Your task to perform on an android device: Add bose soundlink to the cart on amazon.com, then select checkout. Image 0: 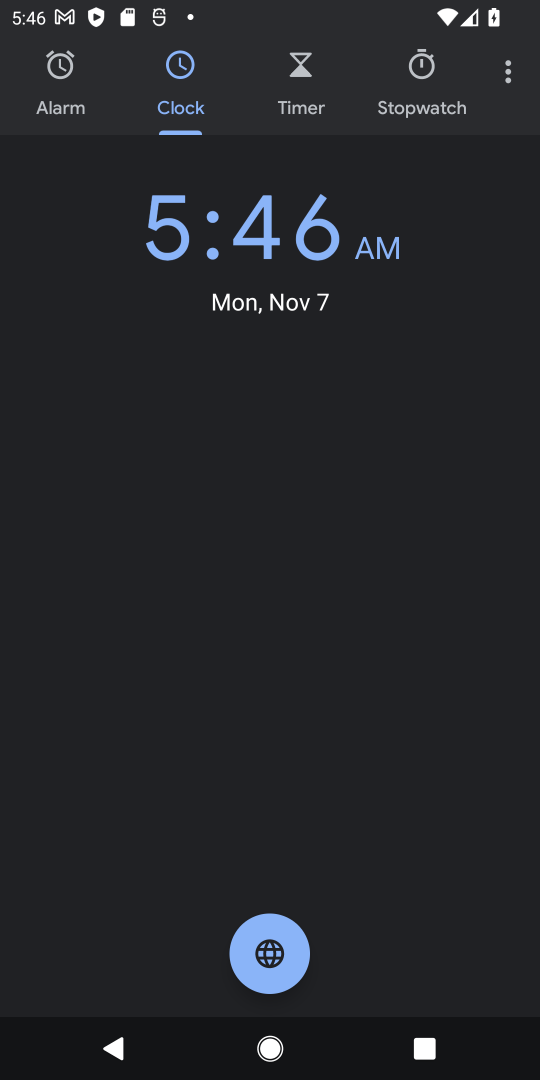
Step 0: press home button
Your task to perform on an android device: Add bose soundlink to the cart on amazon.com, then select checkout. Image 1: 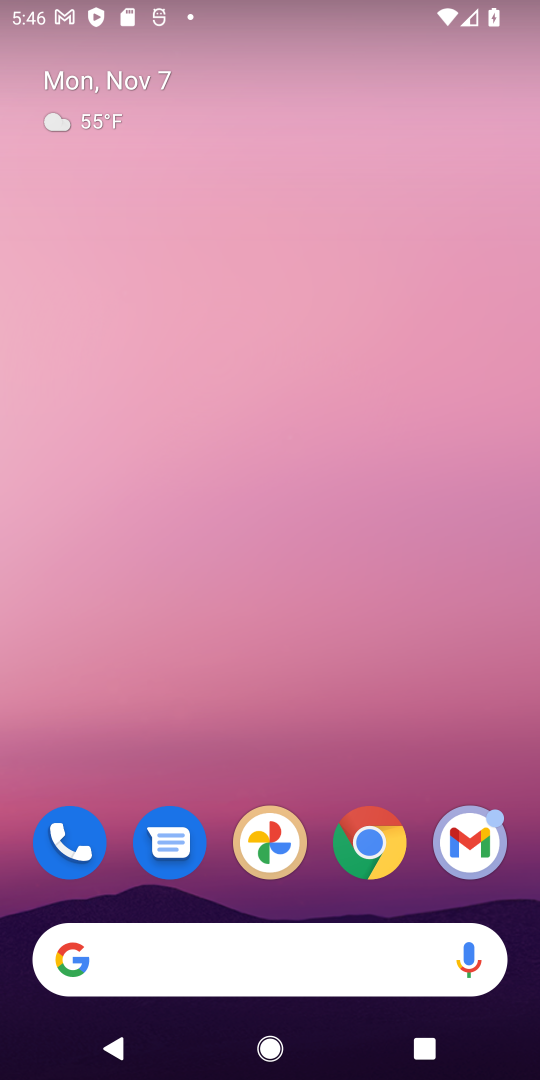
Step 1: click (377, 850)
Your task to perform on an android device: Add bose soundlink to the cart on amazon.com, then select checkout. Image 2: 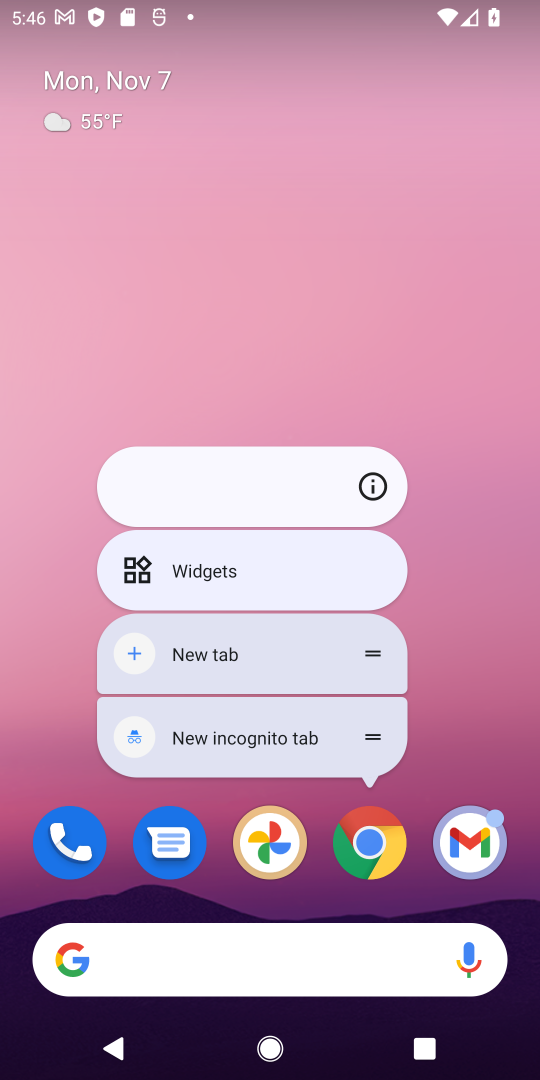
Step 2: click (359, 840)
Your task to perform on an android device: Add bose soundlink to the cart on amazon.com, then select checkout. Image 3: 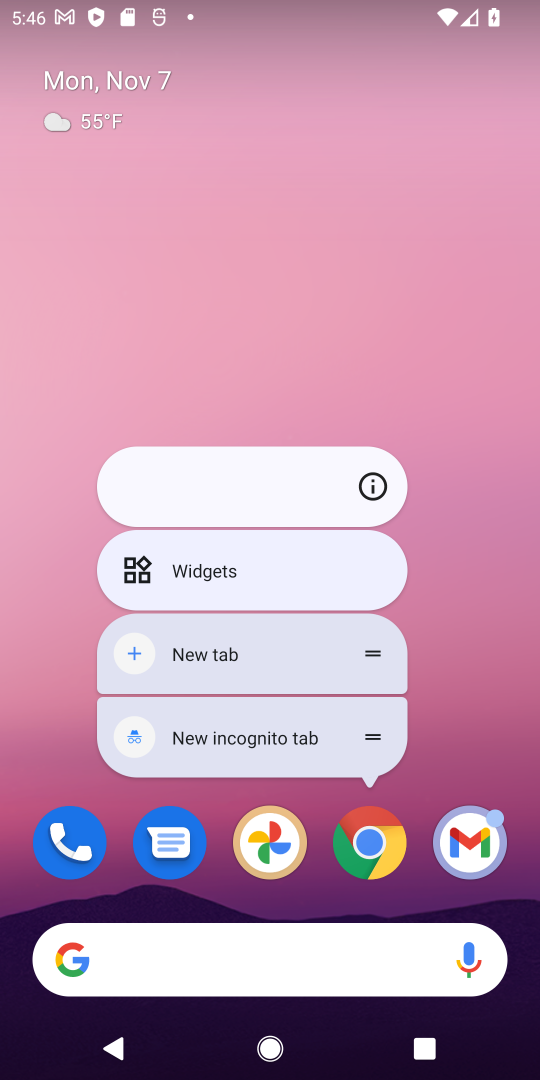
Step 3: click (359, 845)
Your task to perform on an android device: Add bose soundlink to the cart on amazon.com, then select checkout. Image 4: 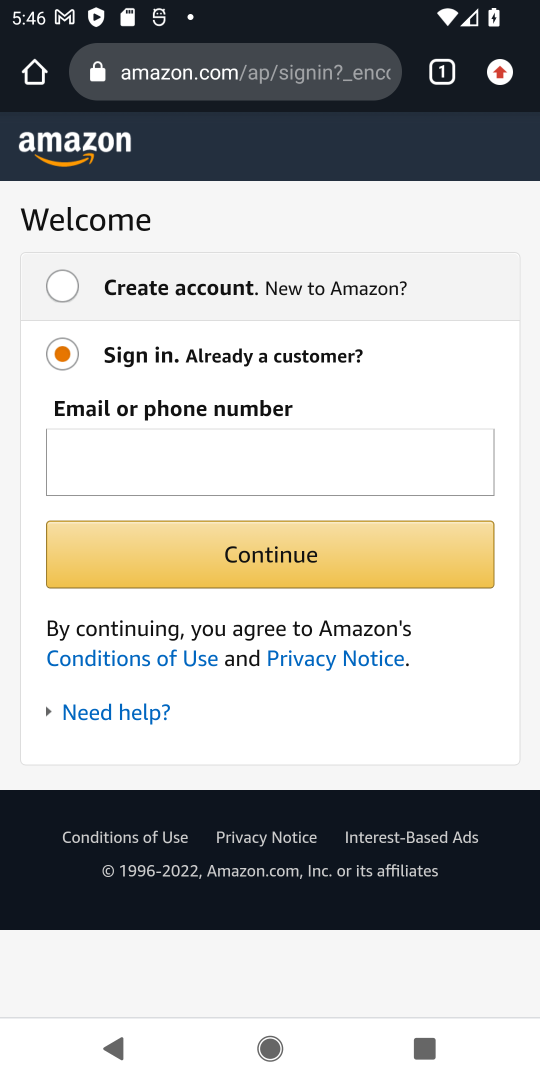
Step 4: drag from (238, 141) to (325, 632)
Your task to perform on an android device: Add bose soundlink to the cart on amazon.com, then select checkout. Image 5: 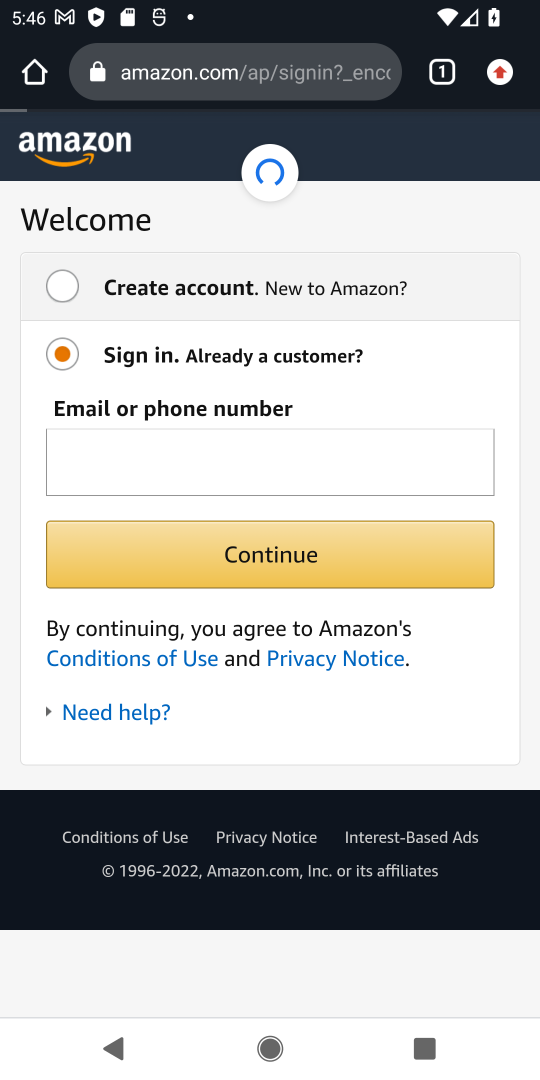
Step 5: press back button
Your task to perform on an android device: Add bose soundlink to the cart on amazon.com, then select checkout. Image 6: 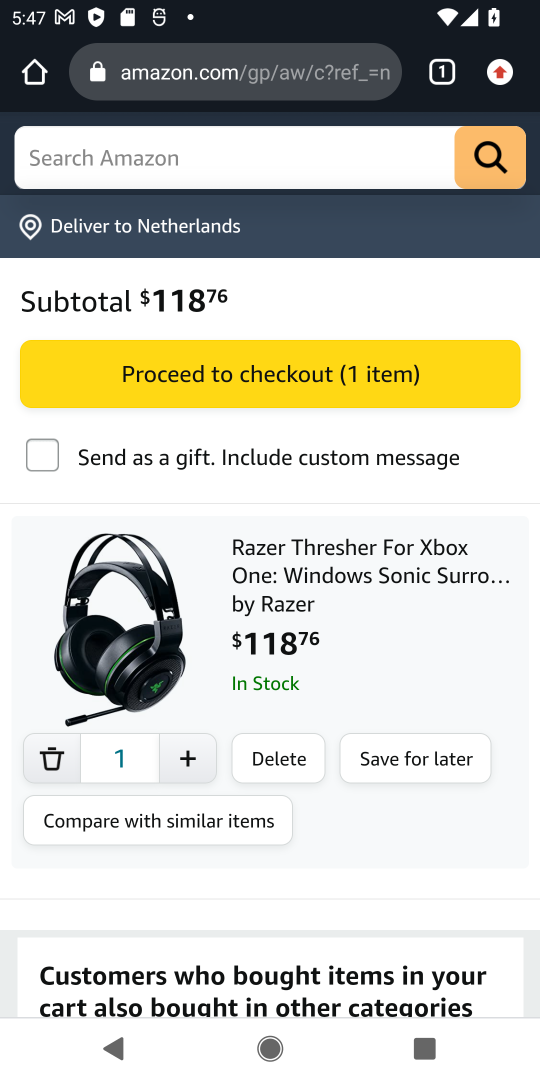
Step 6: click (245, 143)
Your task to perform on an android device: Add bose soundlink to the cart on amazon.com, then select checkout. Image 7: 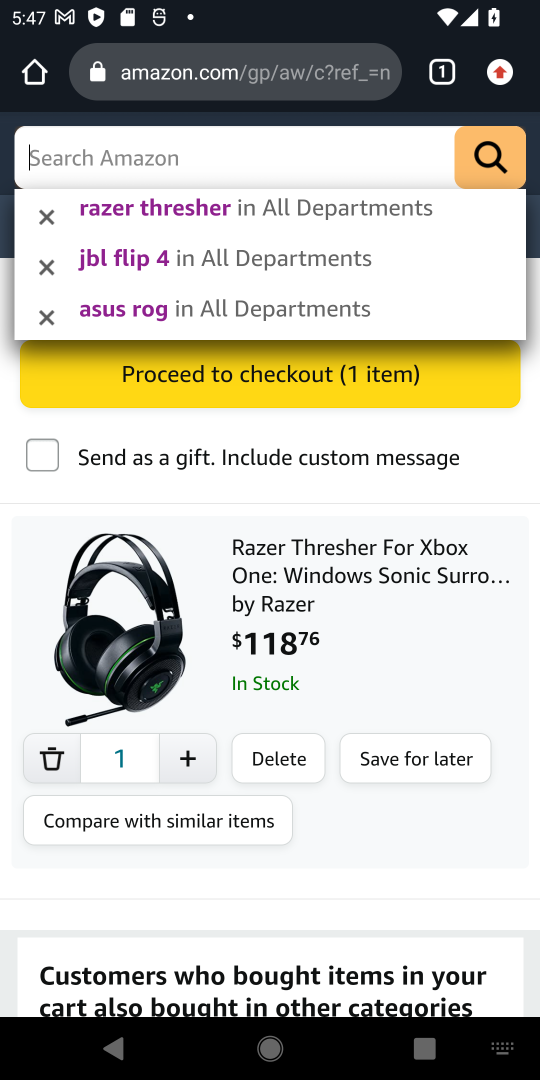
Step 7: type "bose soundlink"
Your task to perform on an android device: Add bose soundlink to the cart on amazon.com, then select checkout. Image 8: 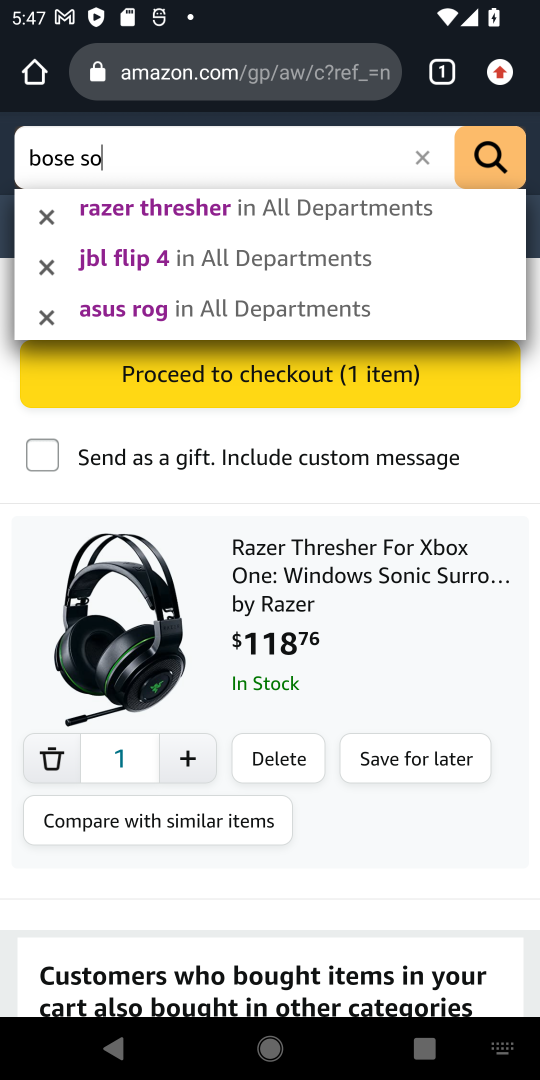
Step 8: press enter
Your task to perform on an android device: Add bose soundlink to the cart on amazon.com, then select checkout. Image 9: 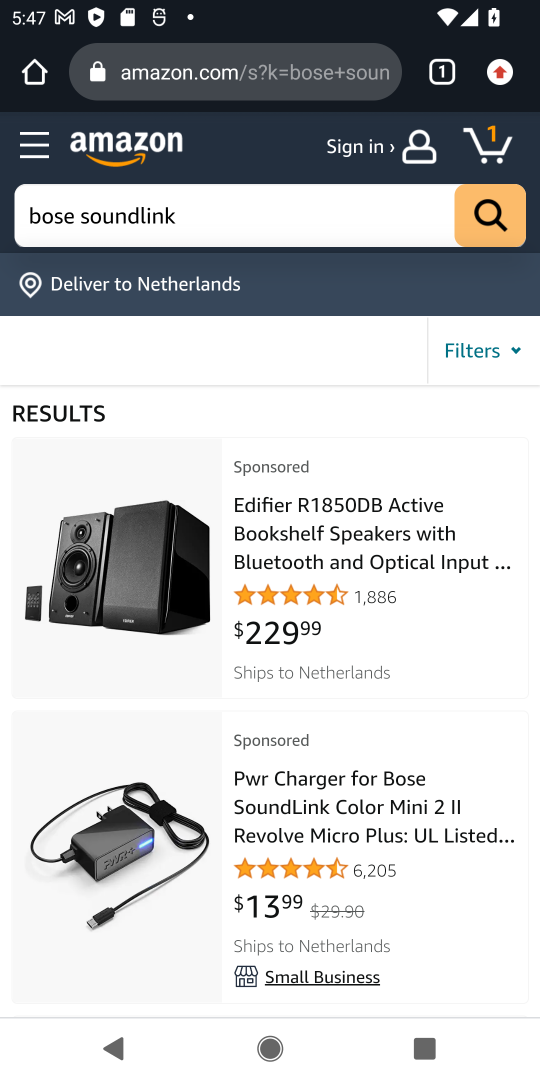
Step 9: drag from (288, 885) to (381, 520)
Your task to perform on an android device: Add bose soundlink to the cart on amazon.com, then select checkout. Image 10: 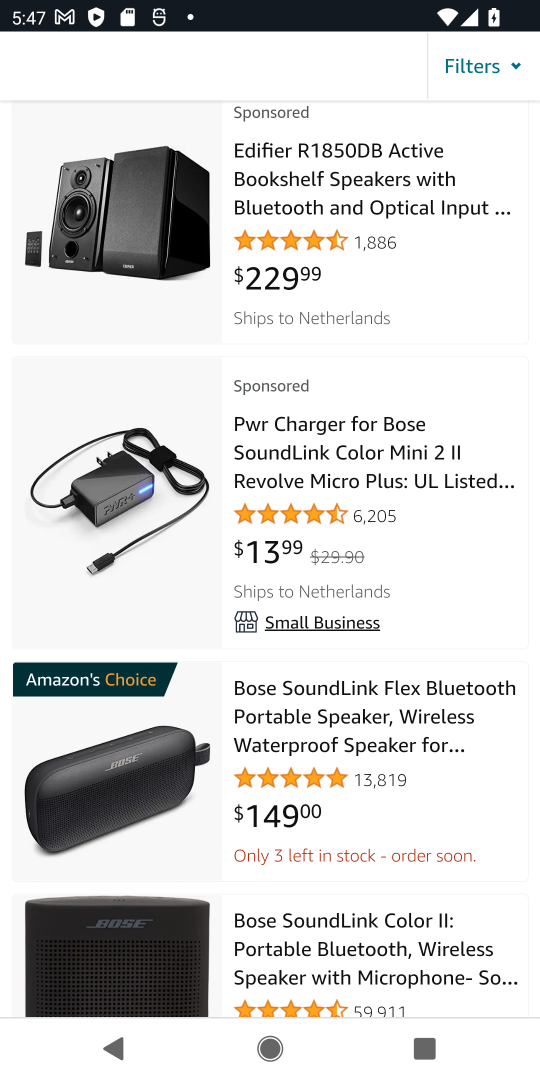
Step 10: click (327, 723)
Your task to perform on an android device: Add bose soundlink to the cart on amazon.com, then select checkout. Image 11: 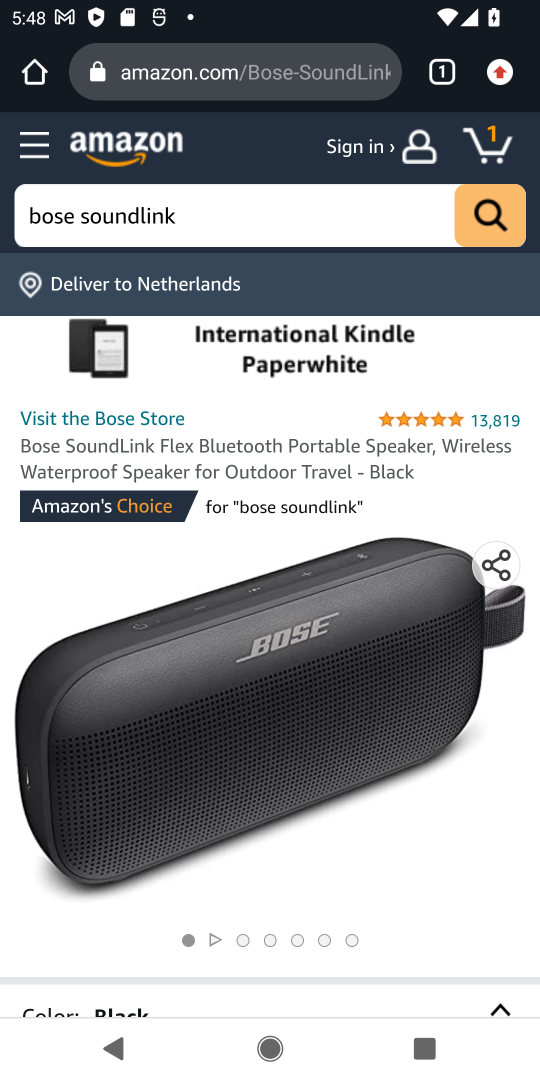
Step 11: task complete